Your task to perform on an android device: uninstall "Life360: Find Family & Friends" Image 0: 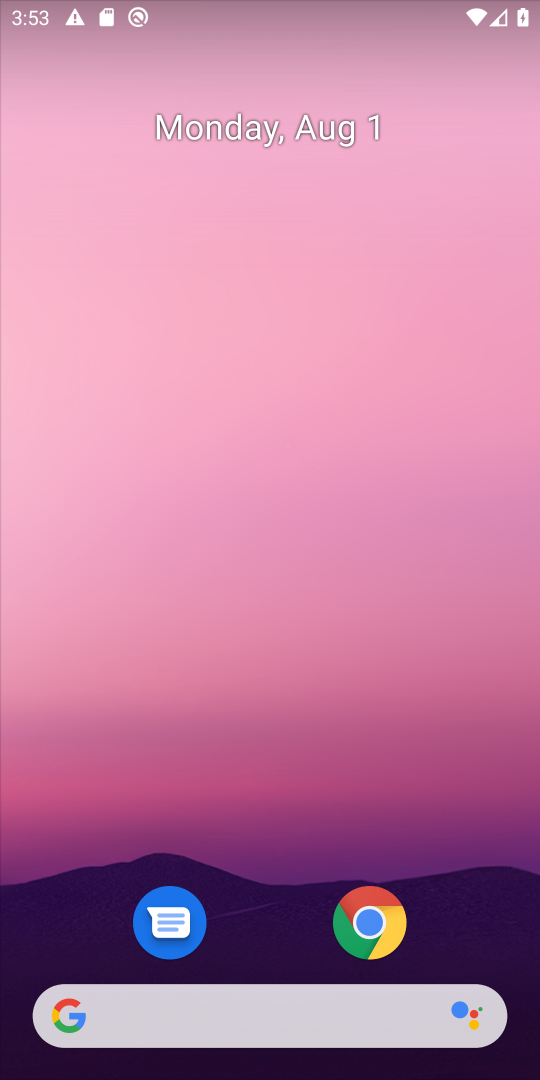
Step 0: drag from (263, 936) to (360, 0)
Your task to perform on an android device: uninstall "Life360: Find Family & Friends" Image 1: 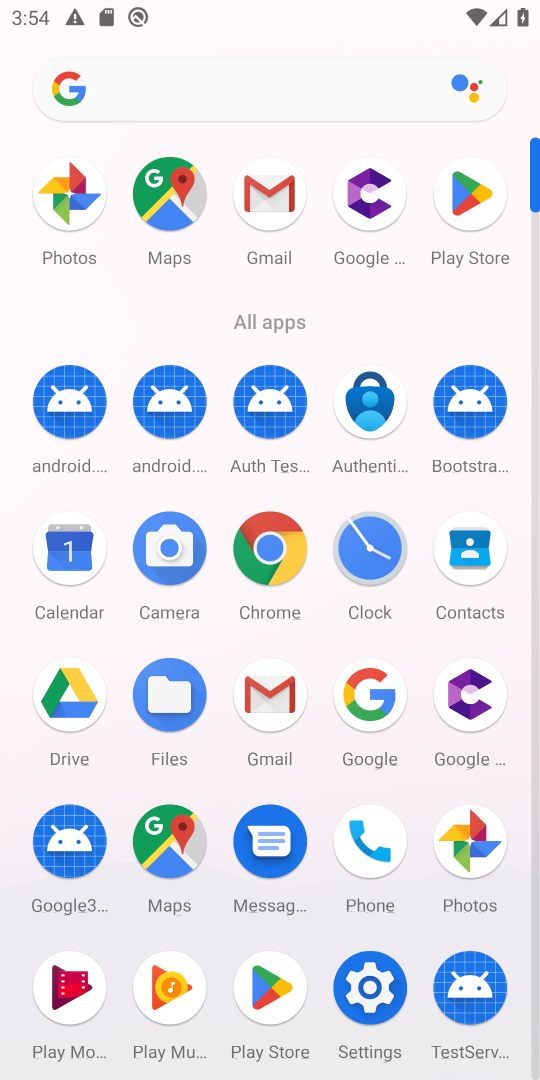
Step 1: click (465, 190)
Your task to perform on an android device: uninstall "Life360: Find Family & Friends" Image 2: 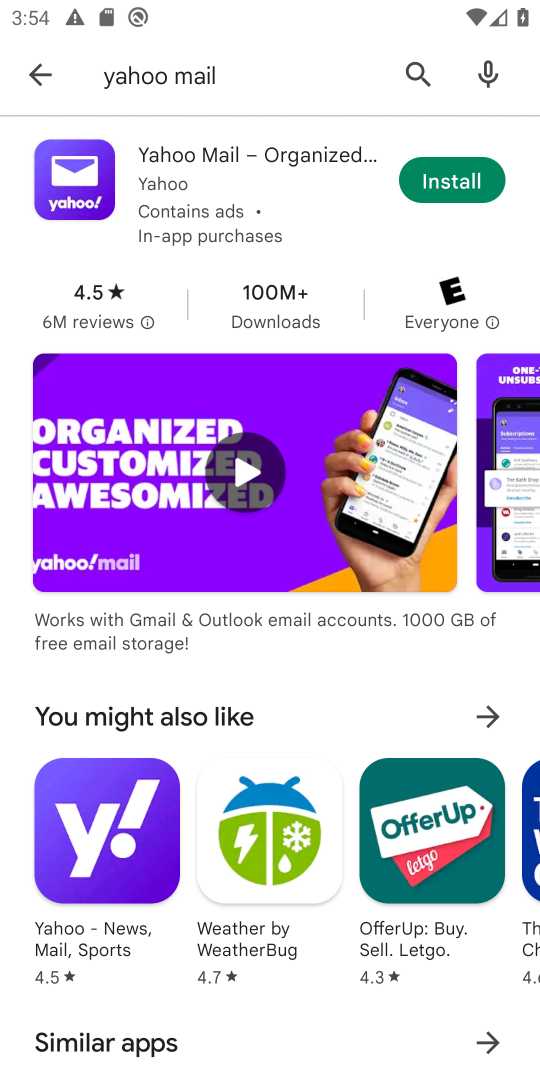
Step 2: click (405, 71)
Your task to perform on an android device: uninstall "Life360: Find Family & Friends" Image 3: 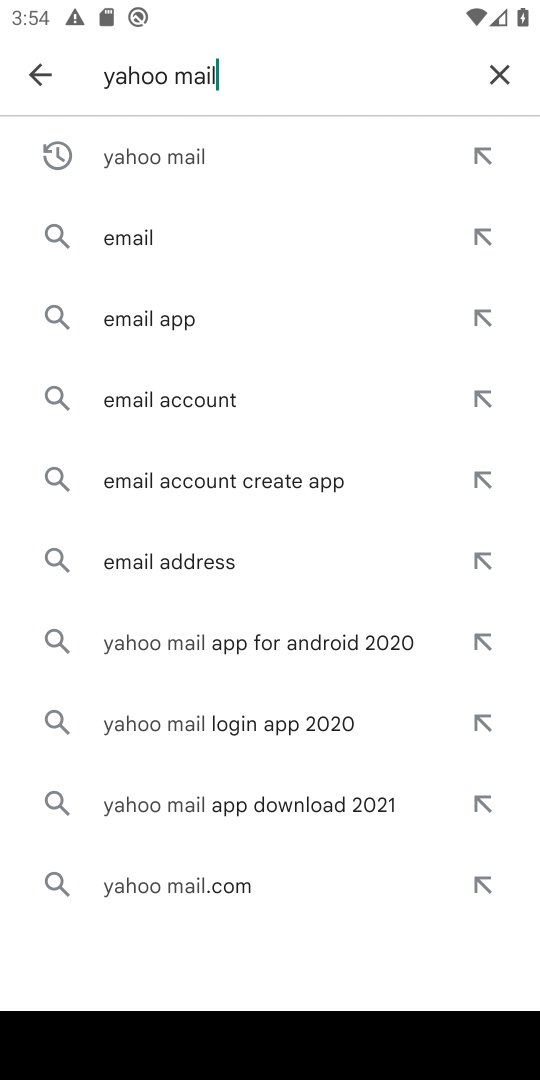
Step 3: click (493, 77)
Your task to perform on an android device: uninstall "Life360: Find Family & Friends" Image 4: 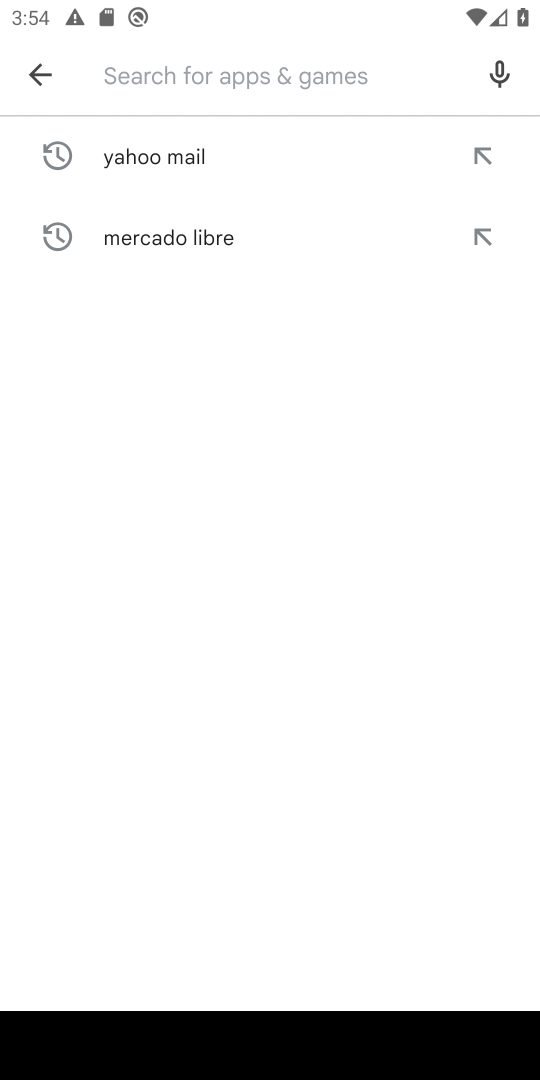
Step 4: type "Life360: Find Family & Friends"
Your task to perform on an android device: uninstall "Life360: Find Family & Friends" Image 5: 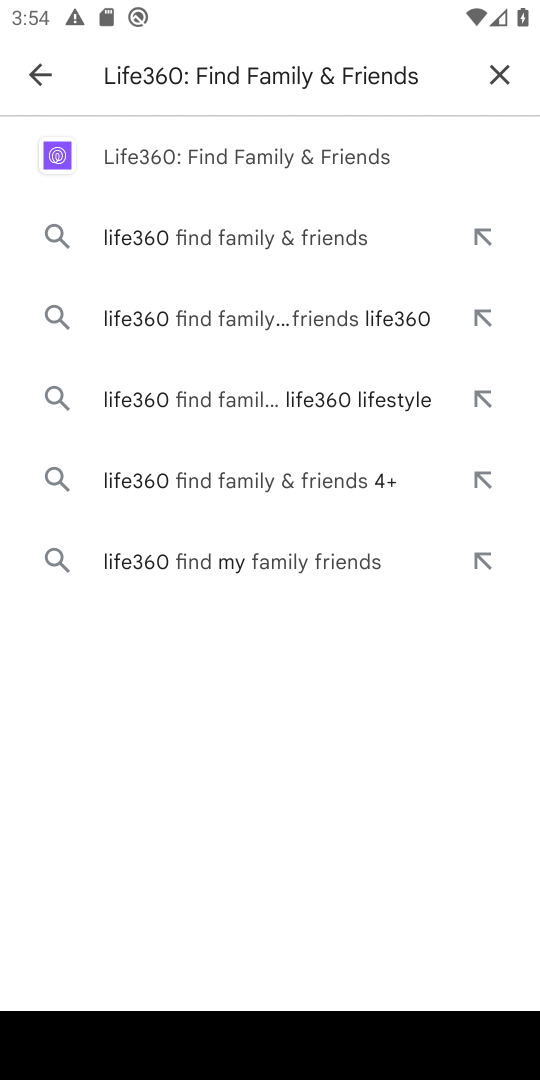
Step 5: click (299, 168)
Your task to perform on an android device: uninstall "Life360: Find Family & Friends" Image 6: 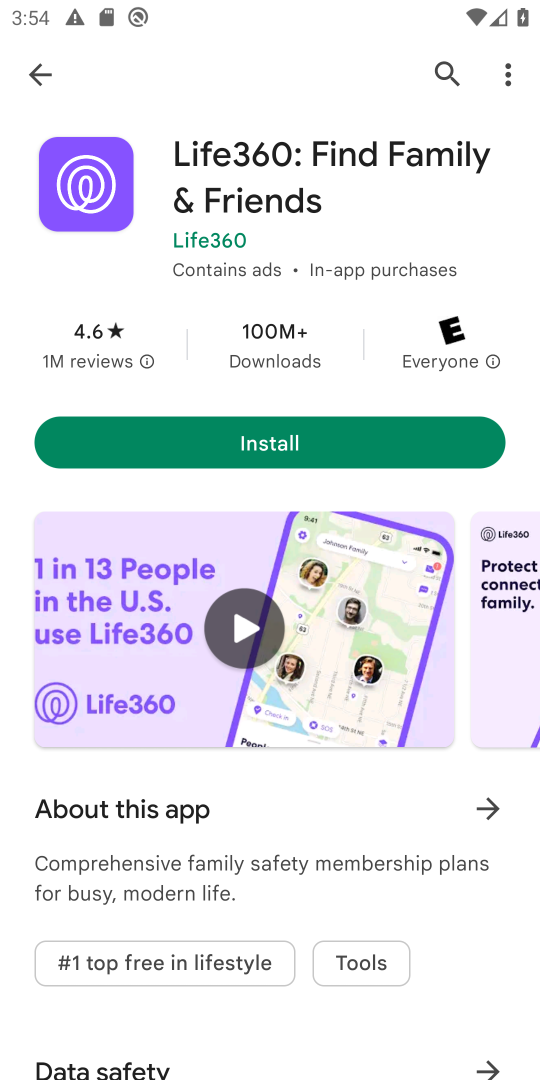
Step 6: task complete